Your task to perform on an android device: turn on wifi Image 0: 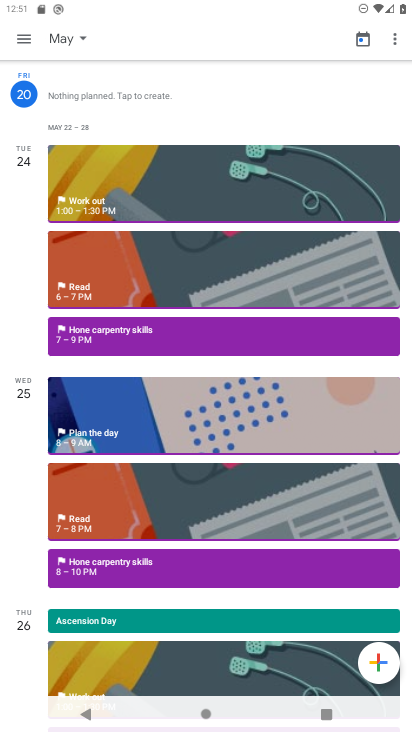
Step 0: press home button
Your task to perform on an android device: turn on wifi Image 1: 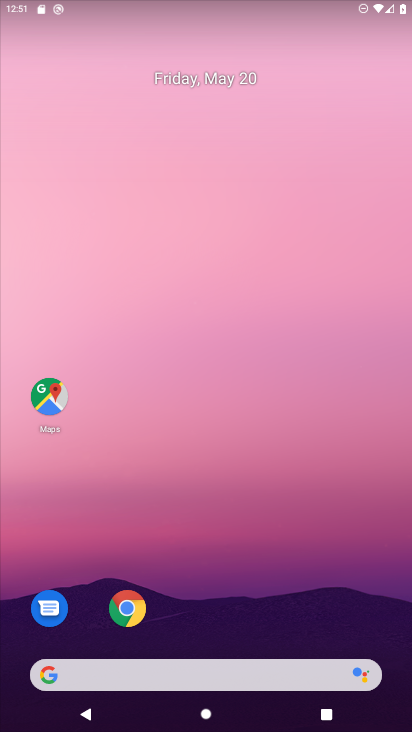
Step 1: task complete